Your task to perform on an android device: find snoozed emails in the gmail app Image 0: 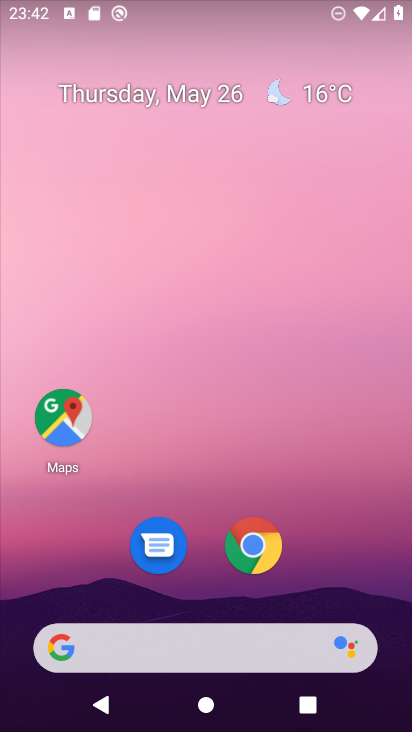
Step 0: drag from (262, 613) to (264, 223)
Your task to perform on an android device: find snoozed emails in the gmail app Image 1: 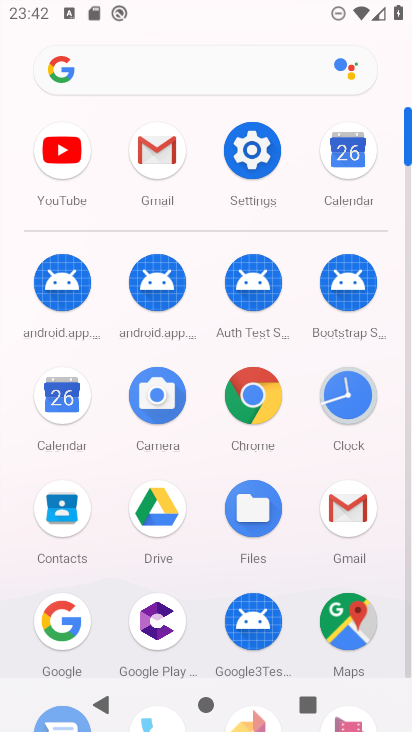
Step 1: click (166, 157)
Your task to perform on an android device: find snoozed emails in the gmail app Image 2: 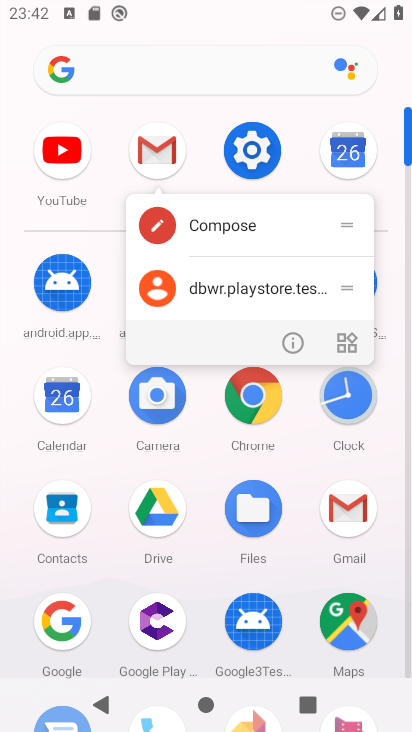
Step 2: click (166, 150)
Your task to perform on an android device: find snoozed emails in the gmail app Image 3: 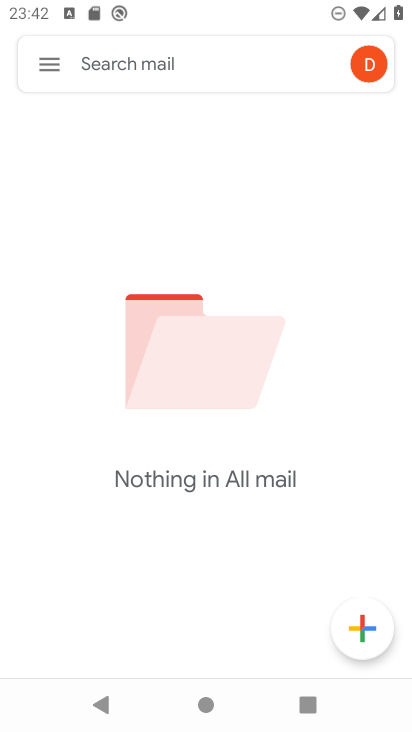
Step 3: click (41, 61)
Your task to perform on an android device: find snoozed emails in the gmail app Image 4: 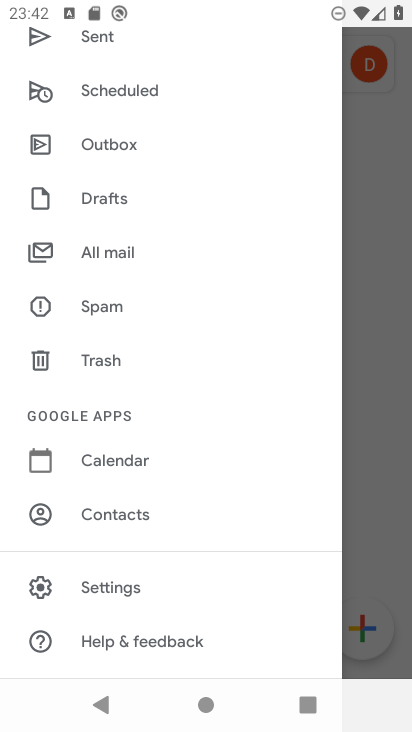
Step 4: drag from (244, 96) to (178, 506)
Your task to perform on an android device: find snoozed emails in the gmail app Image 5: 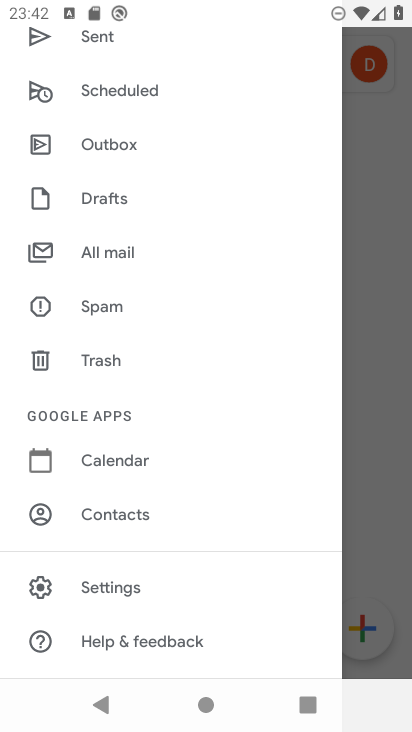
Step 5: drag from (188, 218) to (188, 526)
Your task to perform on an android device: find snoozed emails in the gmail app Image 6: 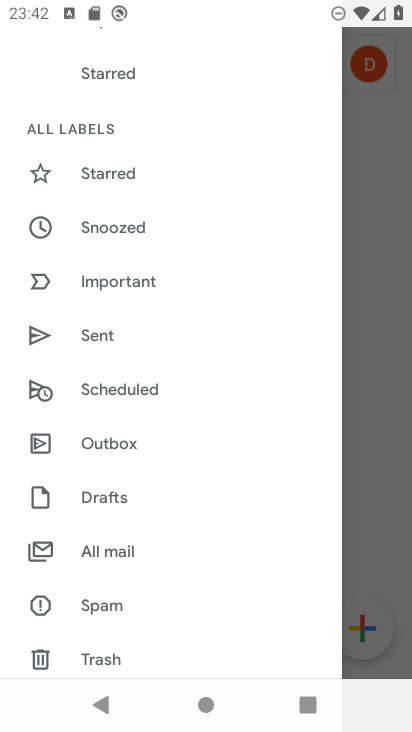
Step 6: click (106, 229)
Your task to perform on an android device: find snoozed emails in the gmail app Image 7: 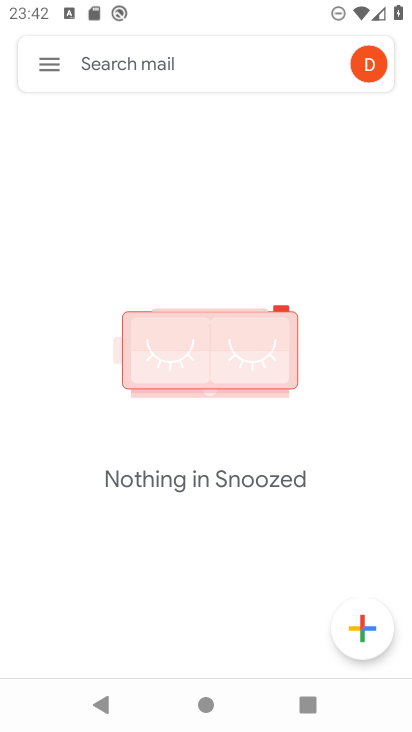
Step 7: task complete